Your task to perform on an android device: Search for "macbook" on bestbuy, select the first entry, add it to the cart, then select checkout. Image 0: 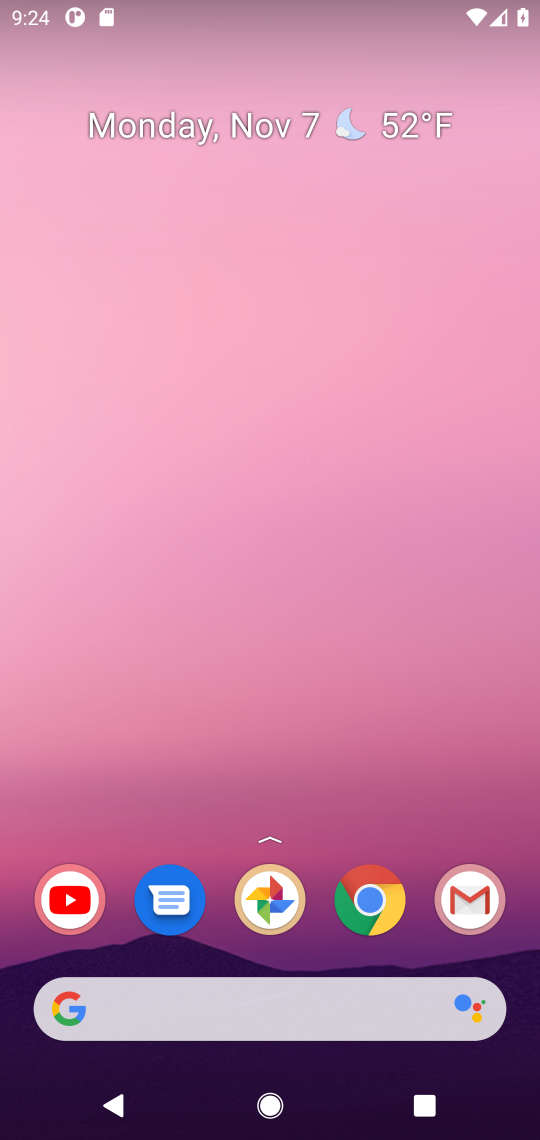
Step 0: click (302, 995)
Your task to perform on an android device: Search for "macbook" on bestbuy, select the first entry, add it to the cart, then select checkout. Image 1: 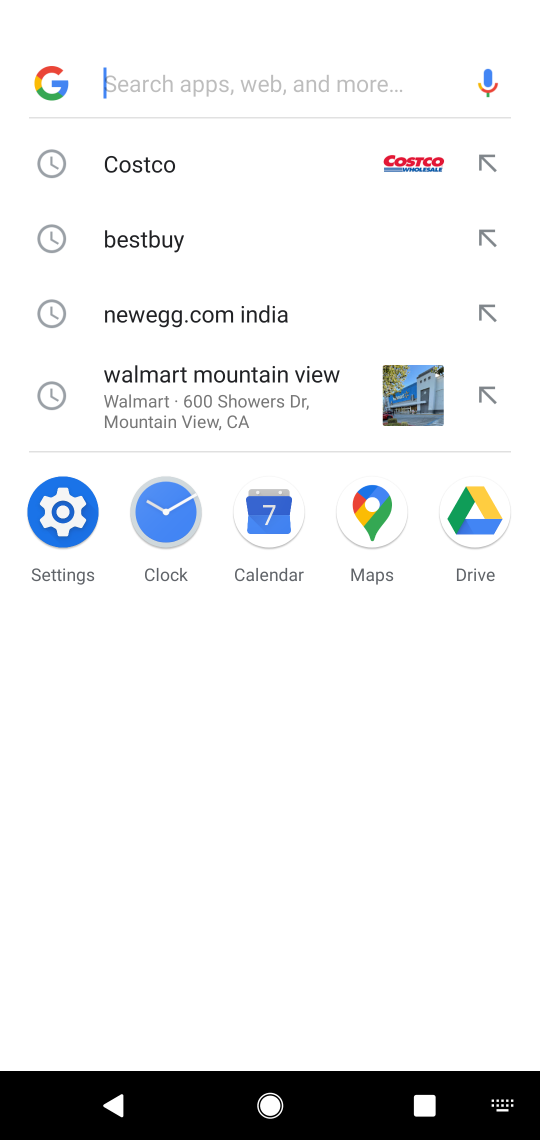
Step 1: click (136, 270)
Your task to perform on an android device: Search for "macbook" on bestbuy, select the first entry, add it to the cart, then select checkout. Image 2: 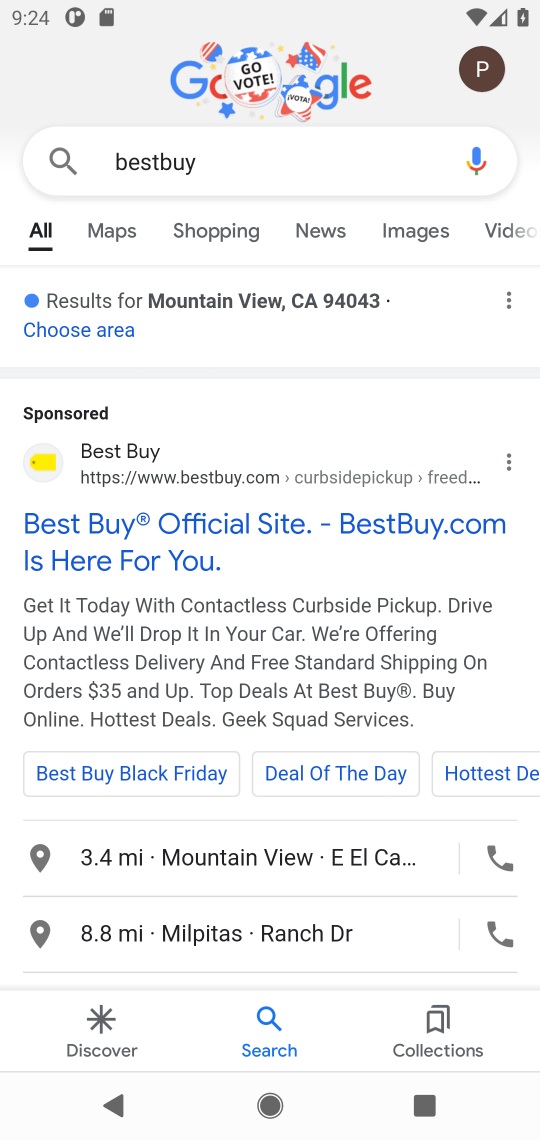
Step 2: click (220, 512)
Your task to perform on an android device: Search for "macbook" on bestbuy, select the first entry, add it to the cart, then select checkout. Image 3: 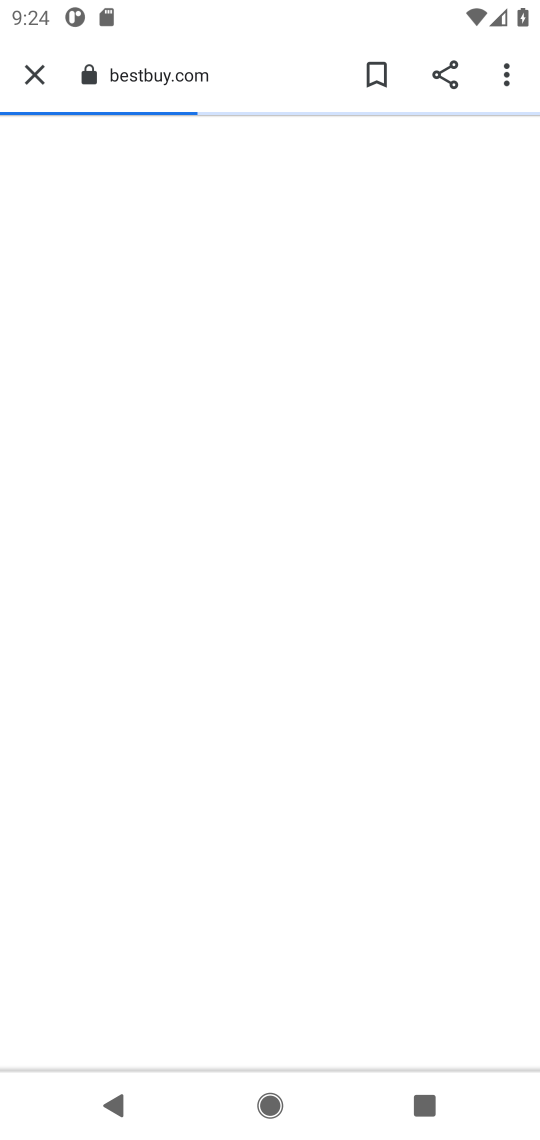
Step 3: click (220, 512)
Your task to perform on an android device: Search for "macbook" on bestbuy, select the first entry, add it to the cart, then select checkout. Image 4: 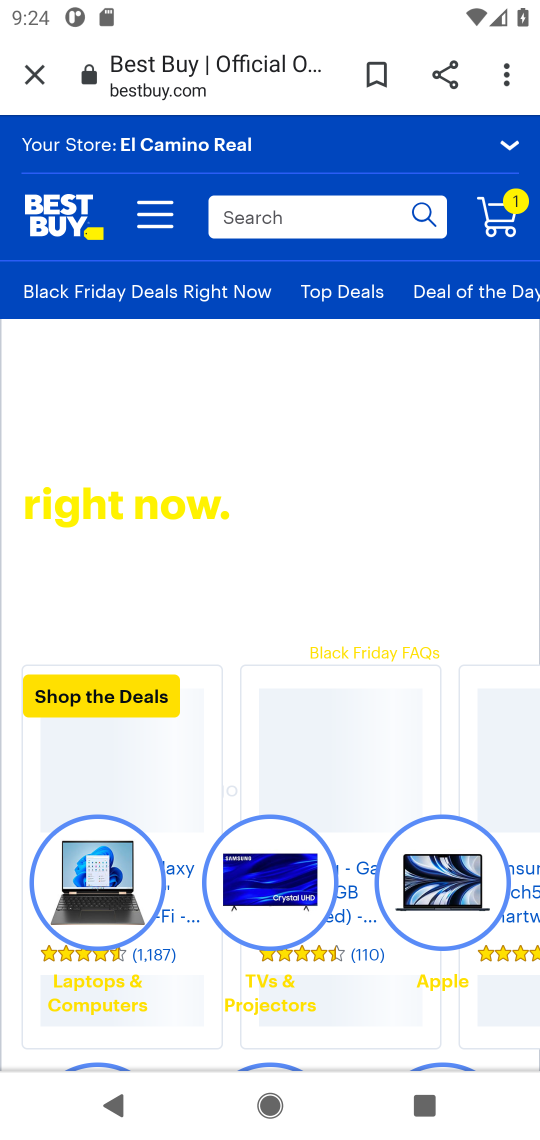
Step 4: click (309, 238)
Your task to perform on an android device: Search for "macbook" on bestbuy, select the first entry, add it to the cart, then select checkout. Image 5: 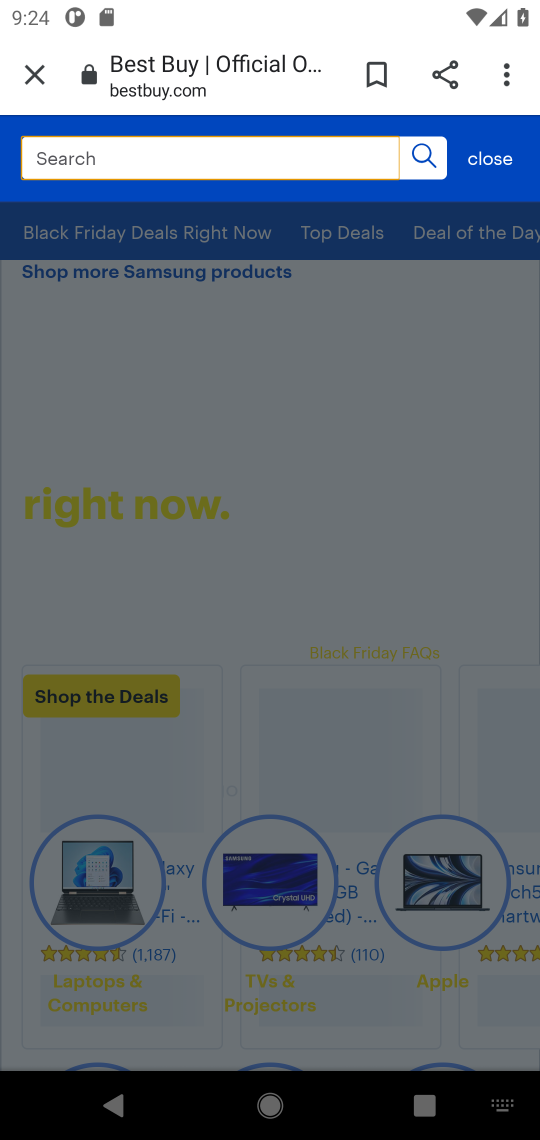
Step 5: type "macbook"
Your task to perform on an android device: Search for "macbook" on bestbuy, select the first entry, add it to the cart, then select checkout. Image 6: 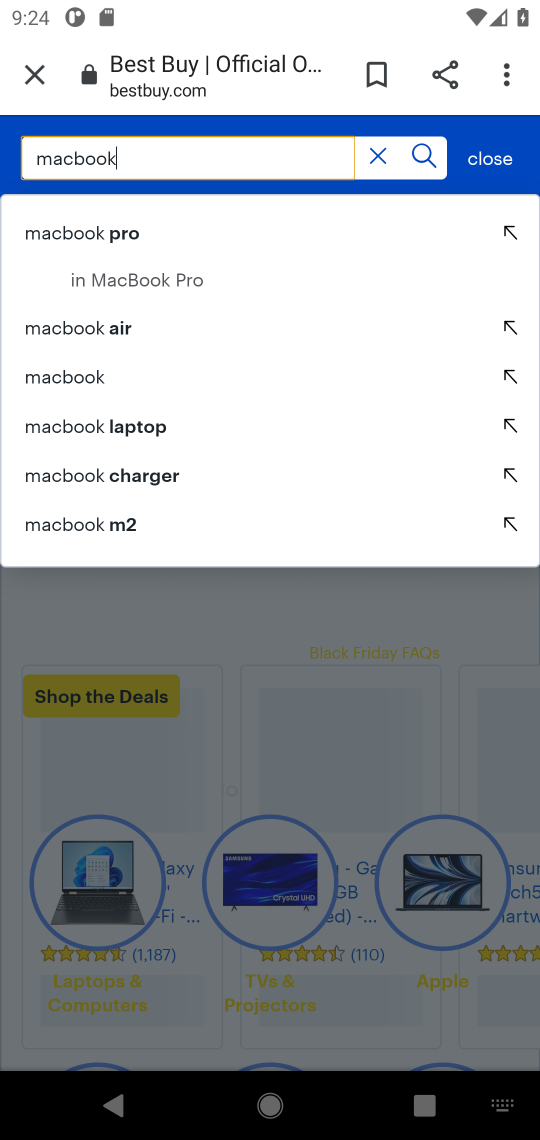
Step 6: click (117, 223)
Your task to perform on an android device: Search for "macbook" on bestbuy, select the first entry, add it to the cart, then select checkout. Image 7: 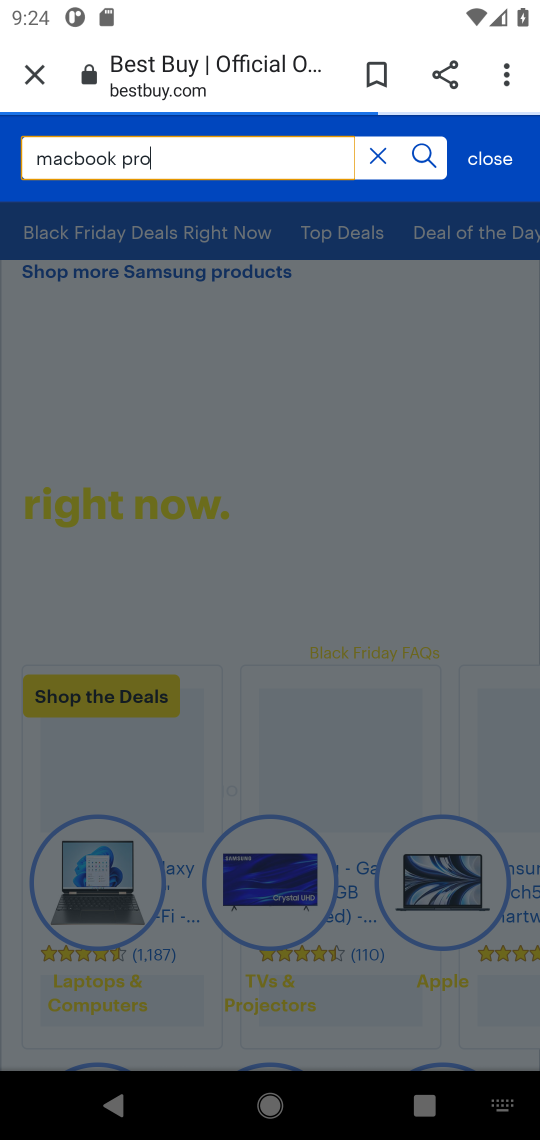
Step 7: click (410, 150)
Your task to perform on an android device: Search for "macbook" on bestbuy, select the first entry, add it to the cart, then select checkout. Image 8: 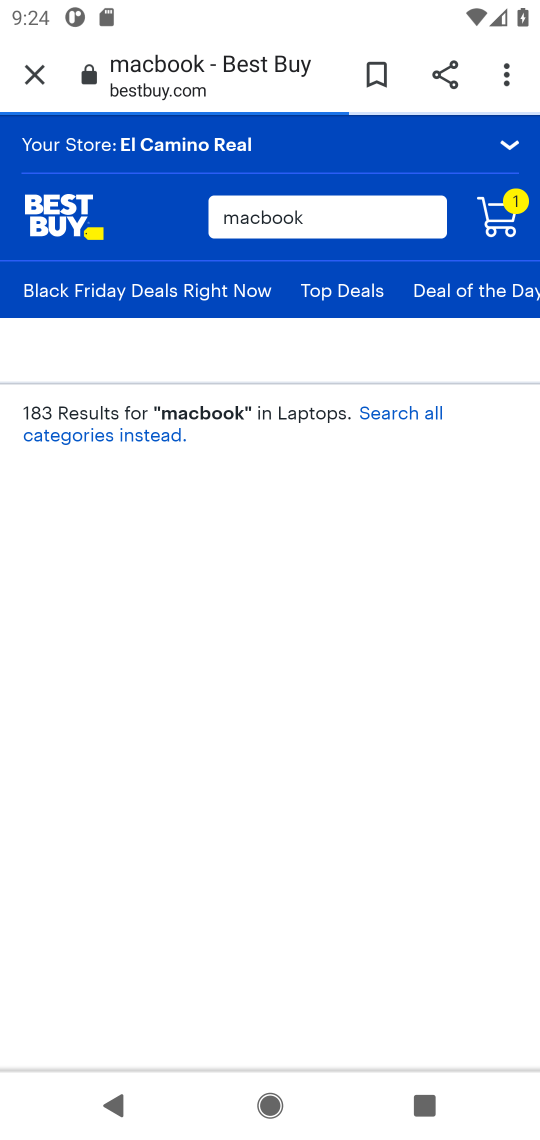
Step 8: task complete